Your task to perform on an android device: Open eBay Image 0: 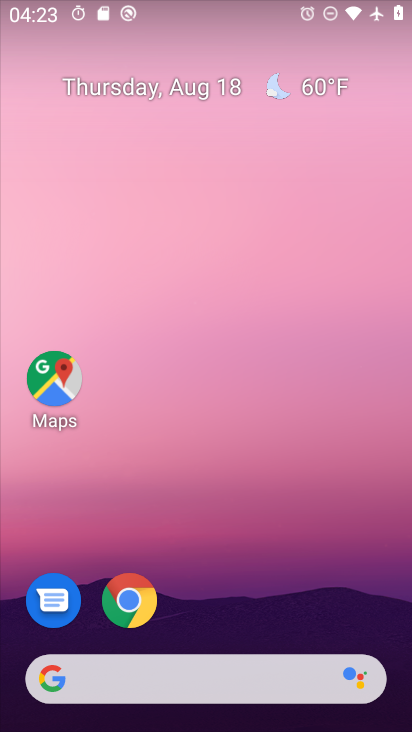
Step 0: press home button
Your task to perform on an android device: Open eBay Image 1: 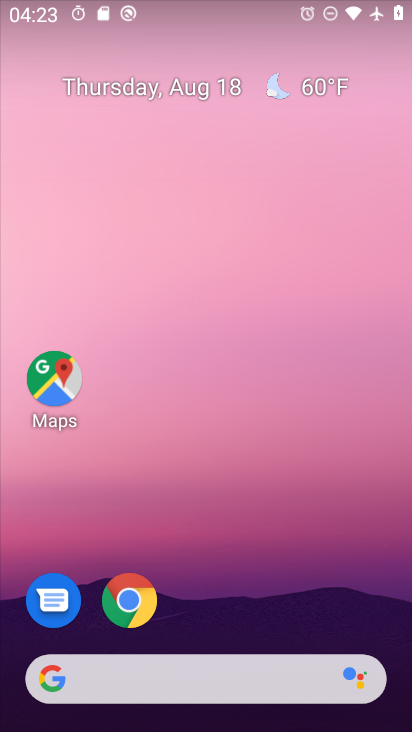
Step 1: click (53, 693)
Your task to perform on an android device: Open eBay Image 2: 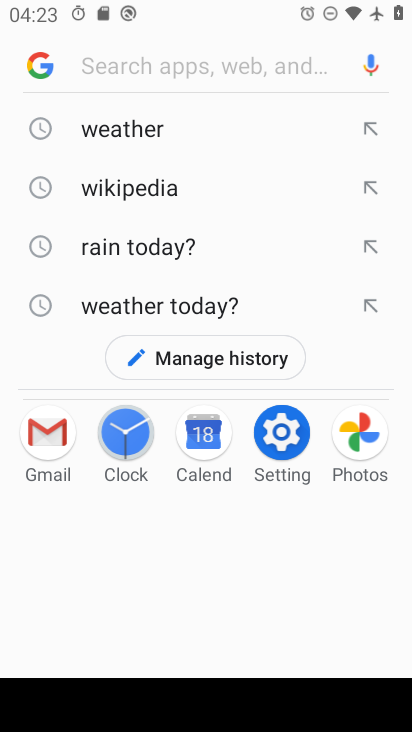
Step 2: type "eBay"
Your task to perform on an android device: Open eBay Image 3: 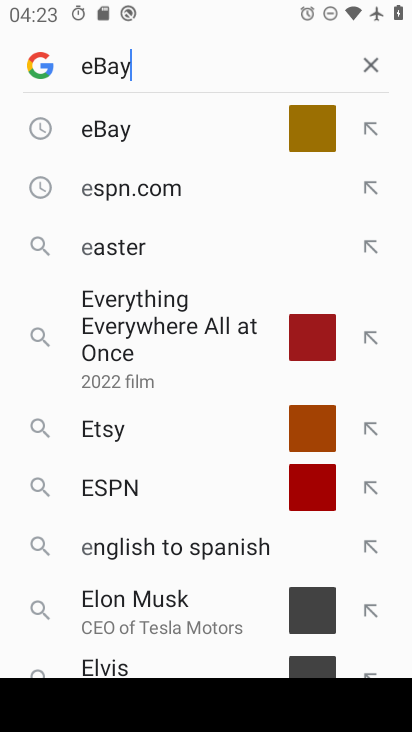
Step 3: press enter
Your task to perform on an android device: Open eBay Image 4: 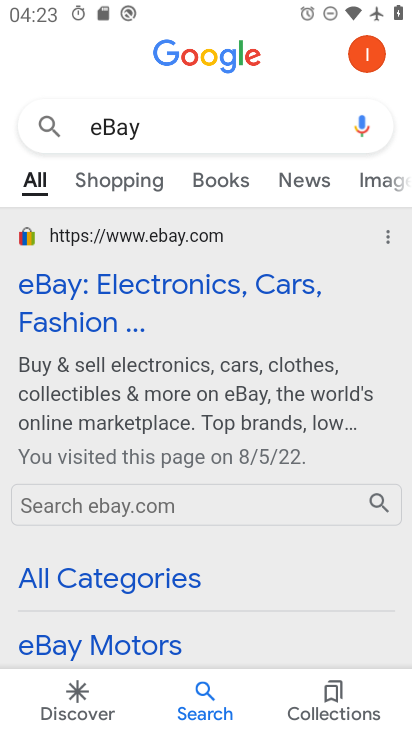
Step 4: click (146, 296)
Your task to perform on an android device: Open eBay Image 5: 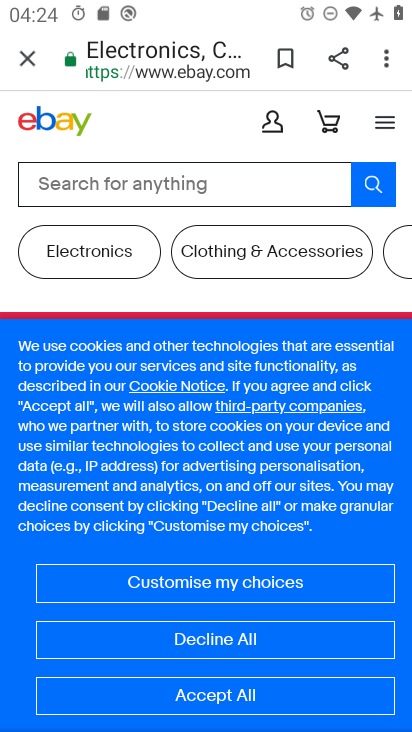
Step 5: task complete